Your task to perform on an android device: allow cookies in the chrome app Image 0: 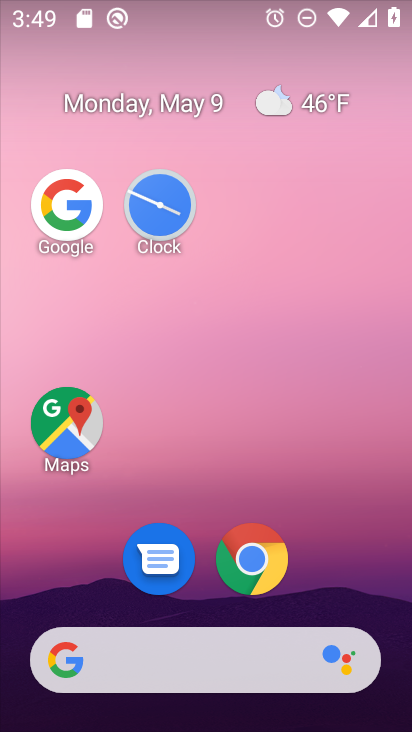
Step 0: click (256, 561)
Your task to perform on an android device: allow cookies in the chrome app Image 1: 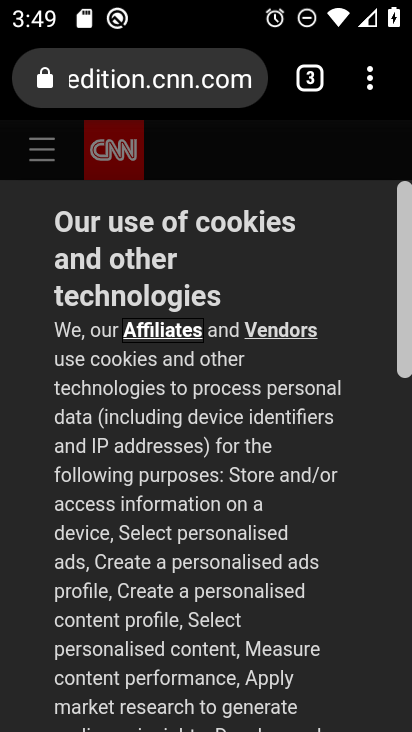
Step 1: click (363, 80)
Your task to perform on an android device: allow cookies in the chrome app Image 2: 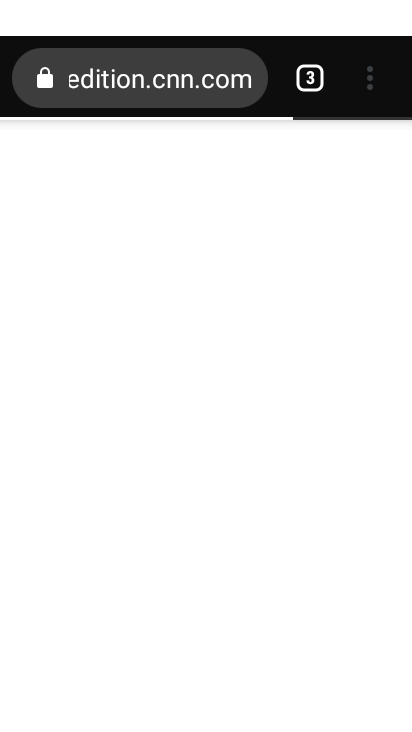
Step 2: click (374, 66)
Your task to perform on an android device: allow cookies in the chrome app Image 3: 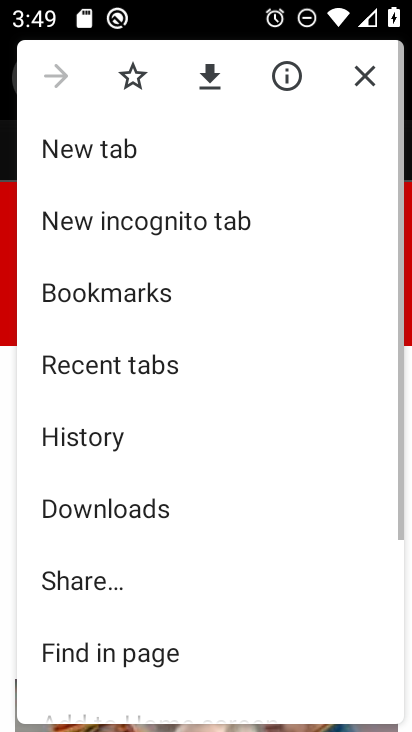
Step 3: drag from (235, 599) to (290, 171)
Your task to perform on an android device: allow cookies in the chrome app Image 4: 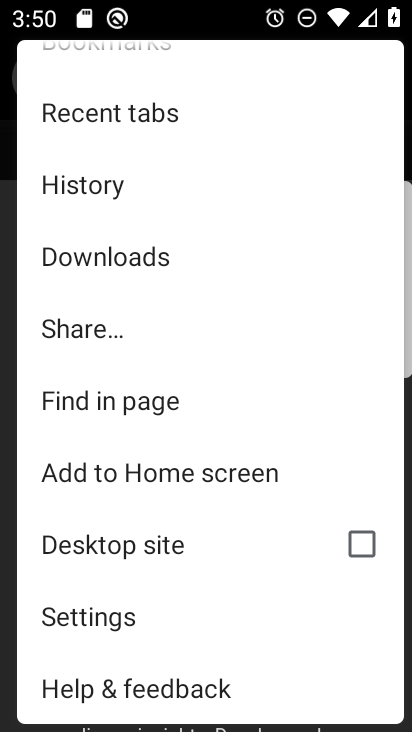
Step 4: click (244, 624)
Your task to perform on an android device: allow cookies in the chrome app Image 5: 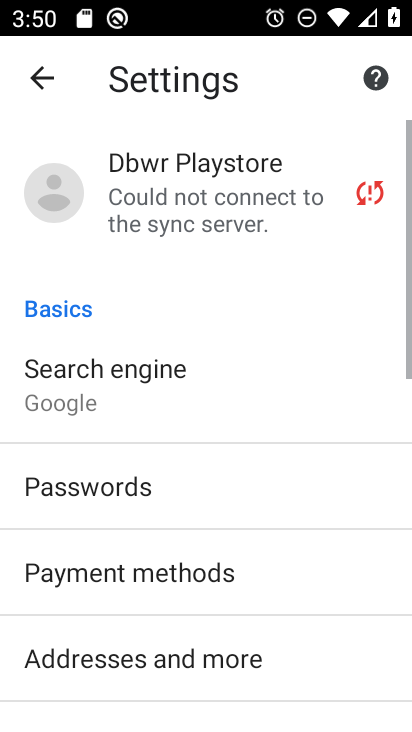
Step 5: drag from (244, 624) to (306, 172)
Your task to perform on an android device: allow cookies in the chrome app Image 6: 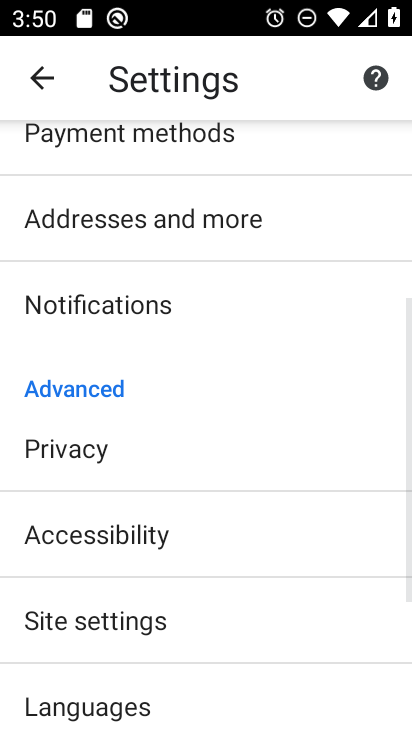
Step 6: click (182, 614)
Your task to perform on an android device: allow cookies in the chrome app Image 7: 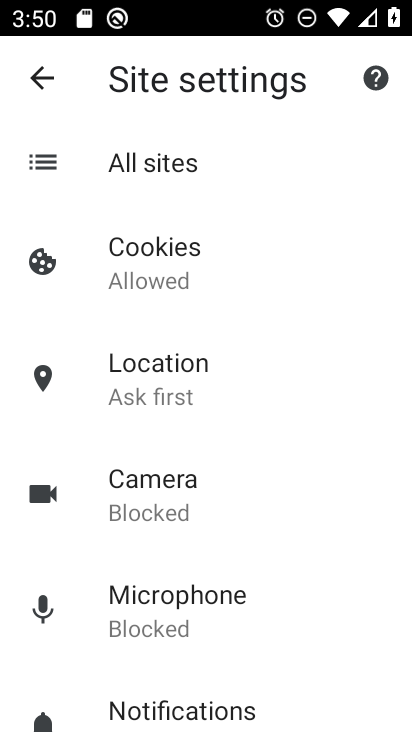
Step 7: click (299, 246)
Your task to perform on an android device: allow cookies in the chrome app Image 8: 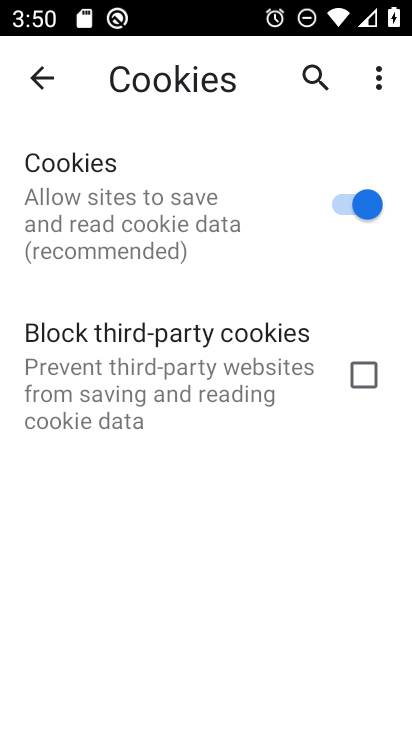
Step 8: task complete